Your task to perform on an android device: Show me productivity apps on the Play Store Image 0: 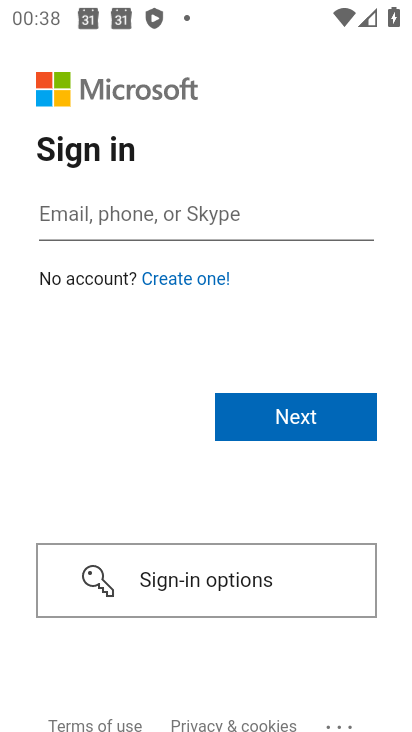
Step 0: press home button
Your task to perform on an android device: Show me productivity apps on the Play Store Image 1: 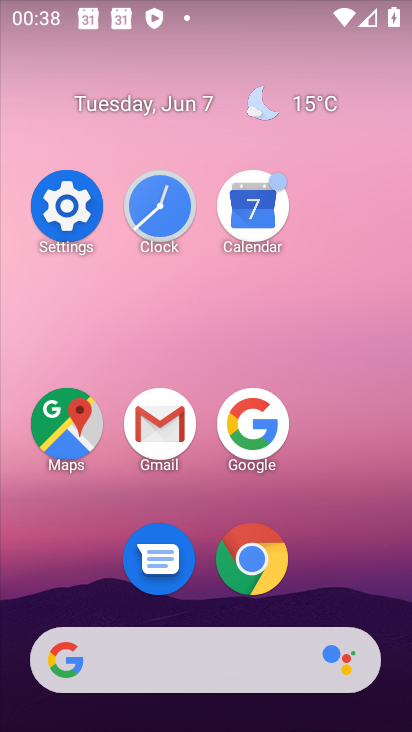
Step 1: drag from (350, 571) to (316, 177)
Your task to perform on an android device: Show me productivity apps on the Play Store Image 2: 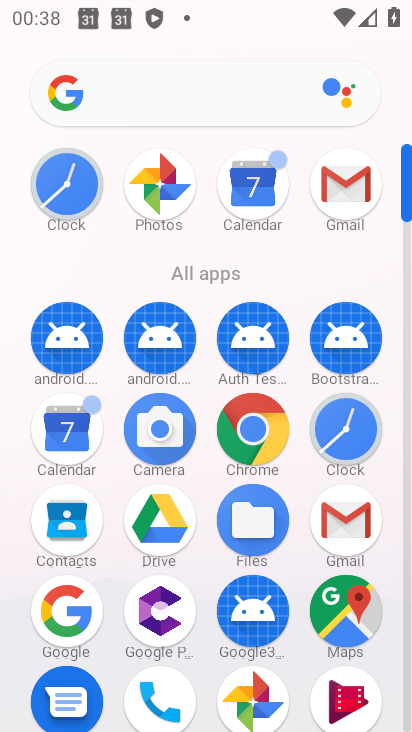
Step 2: drag from (157, 607) to (174, 272)
Your task to perform on an android device: Show me productivity apps on the Play Store Image 3: 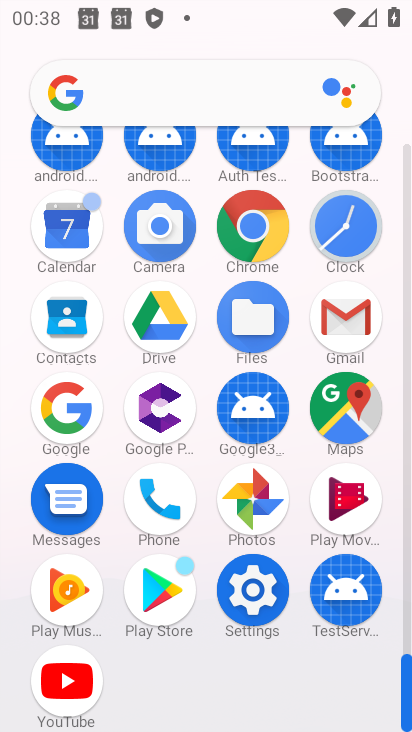
Step 3: drag from (156, 594) to (103, 322)
Your task to perform on an android device: Show me productivity apps on the Play Store Image 4: 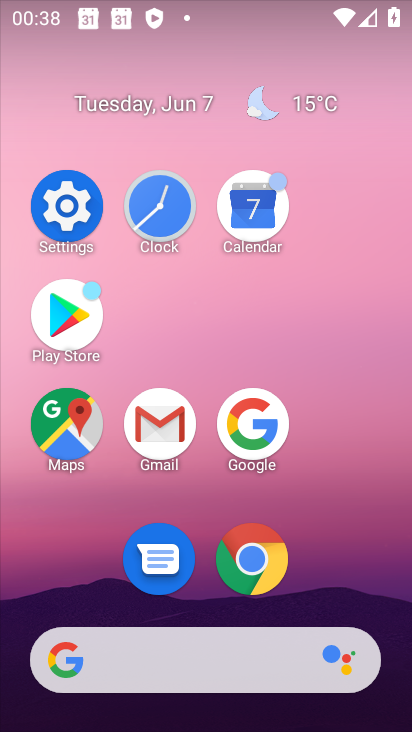
Step 4: click (88, 313)
Your task to perform on an android device: Show me productivity apps on the Play Store Image 5: 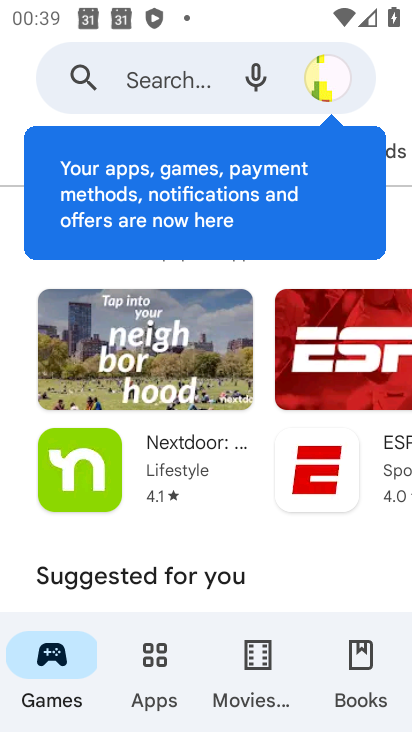
Step 5: click (147, 692)
Your task to perform on an android device: Show me productivity apps on the Play Store Image 6: 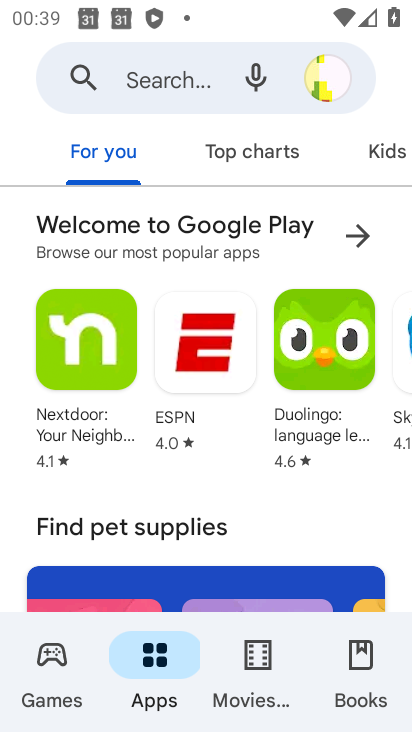
Step 6: drag from (357, 167) to (133, 159)
Your task to perform on an android device: Show me productivity apps on the Play Store Image 7: 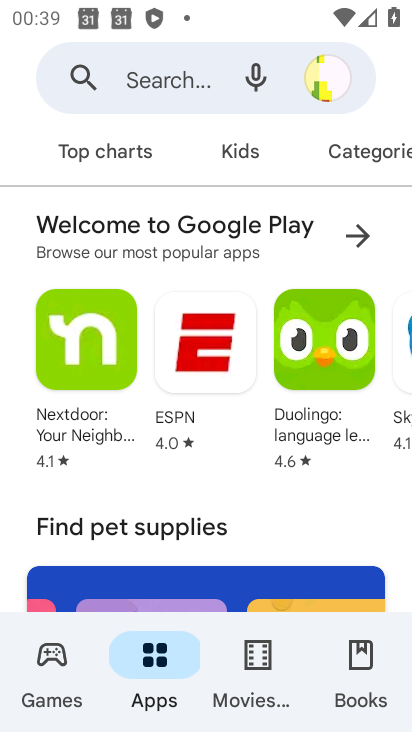
Step 7: click (359, 133)
Your task to perform on an android device: Show me productivity apps on the Play Store Image 8: 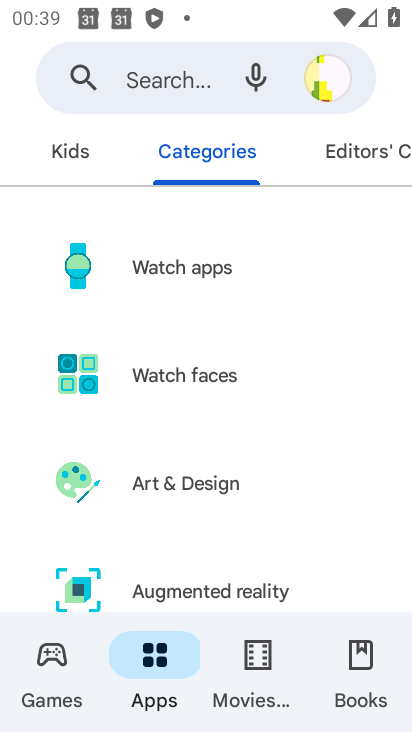
Step 8: drag from (254, 585) to (260, 210)
Your task to perform on an android device: Show me productivity apps on the Play Store Image 9: 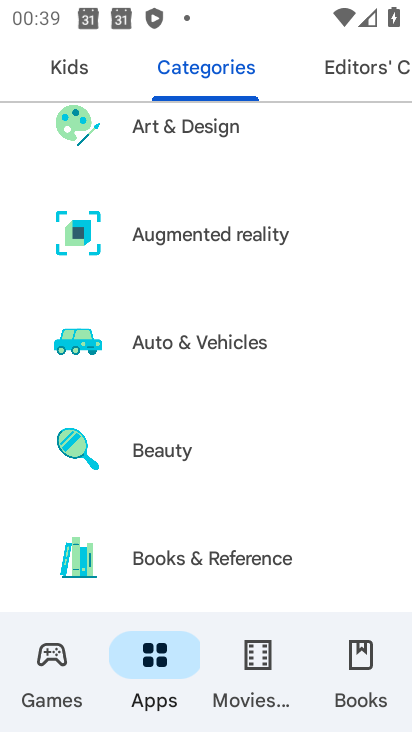
Step 9: drag from (264, 512) to (312, 125)
Your task to perform on an android device: Show me productivity apps on the Play Store Image 10: 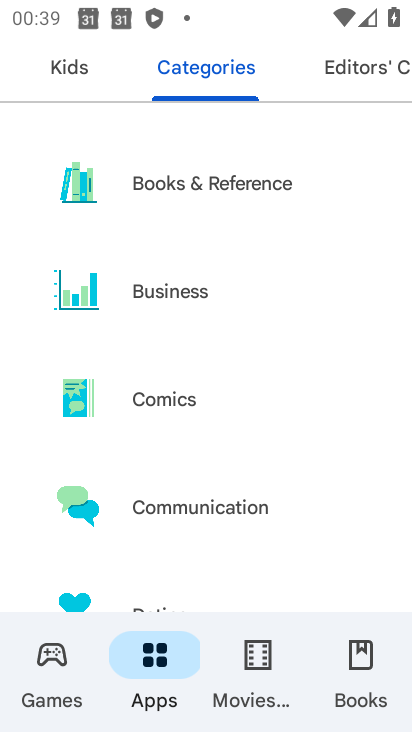
Step 10: drag from (251, 483) to (314, 137)
Your task to perform on an android device: Show me productivity apps on the Play Store Image 11: 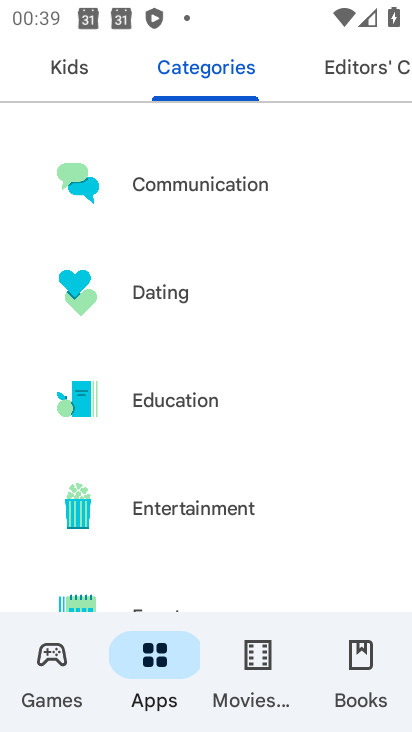
Step 11: drag from (230, 526) to (282, 188)
Your task to perform on an android device: Show me productivity apps on the Play Store Image 12: 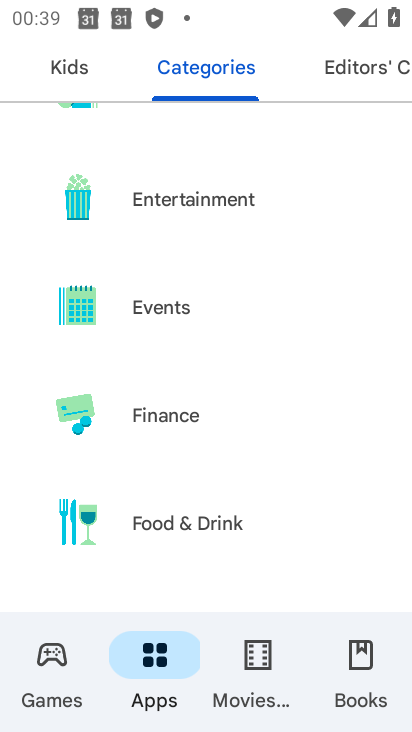
Step 12: drag from (139, 580) to (252, 227)
Your task to perform on an android device: Show me productivity apps on the Play Store Image 13: 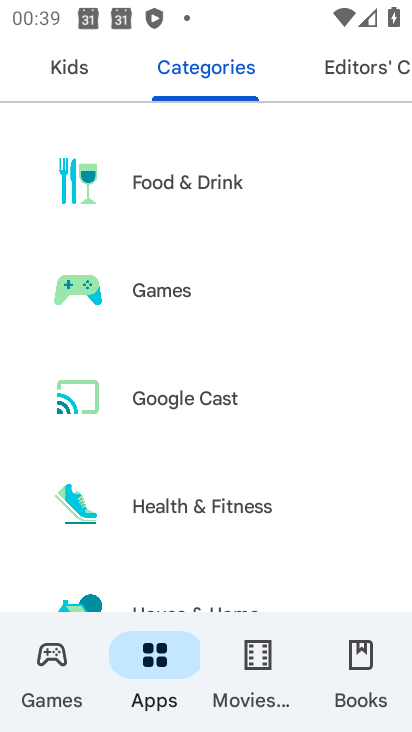
Step 13: drag from (219, 517) to (201, 37)
Your task to perform on an android device: Show me productivity apps on the Play Store Image 14: 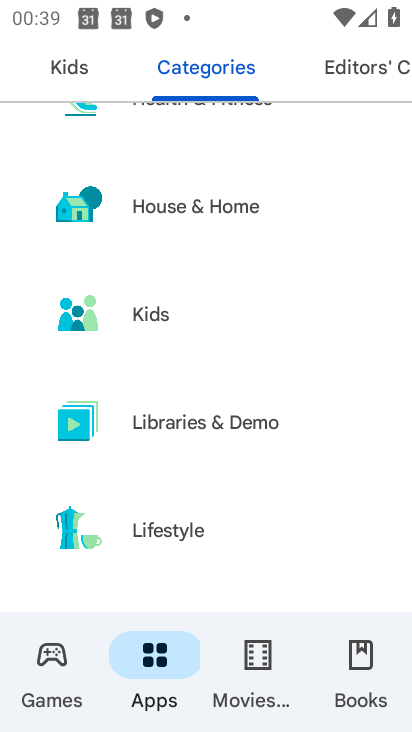
Step 14: drag from (247, 518) to (231, 157)
Your task to perform on an android device: Show me productivity apps on the Play Store Image 15: 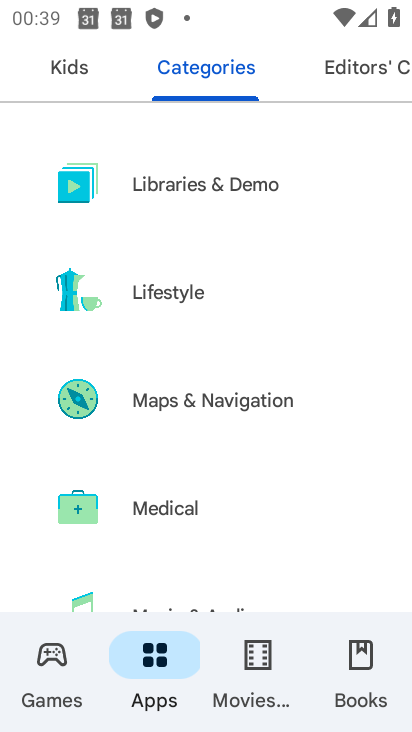
Step 15: drag from (177, 483) to (162, 108)
Your task to perform on an android device: Show me productivity apps on the Play Store Image 16: 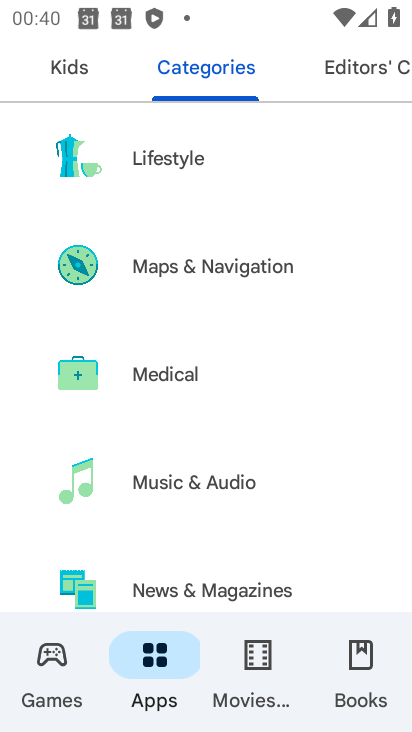
Step 16: drag from (242, 529) to (282, 183)
Your task to perform on an android device: Show me productivity apps on the Play Store Image 17: 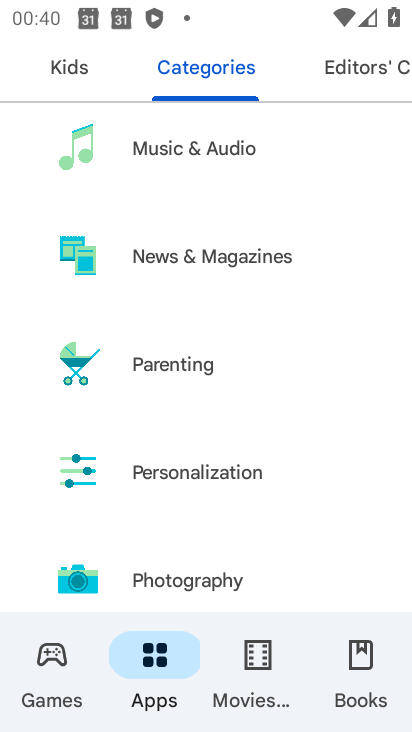
Step 17: drag from (246, 486) to (250, 259)
Your task to perform on an android device: Show me productivity apps on the Play Store Image 18: 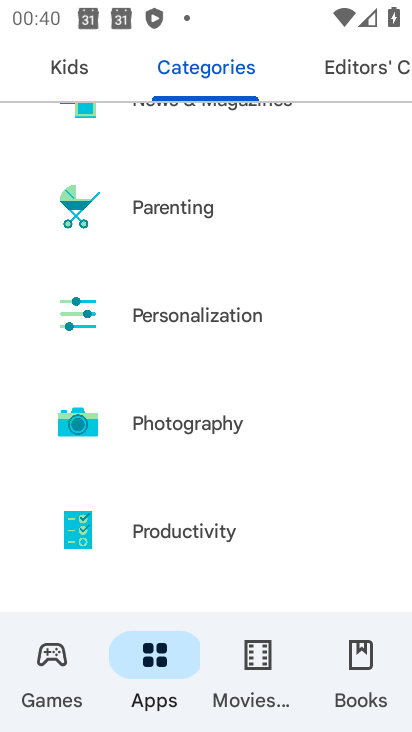
Step 18: click (214, 535)
Your task to perform on an android device: Show me productivity apps on the Play Store Image 19: 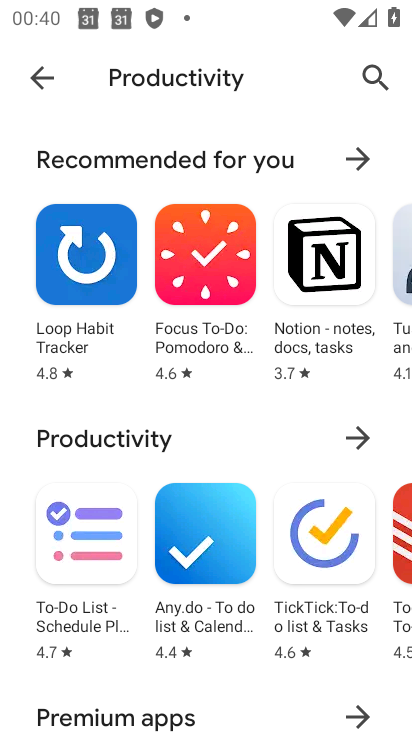
Step 19: task complete